Your task to perform on an android device: turn on improve location accuracy Image 0: 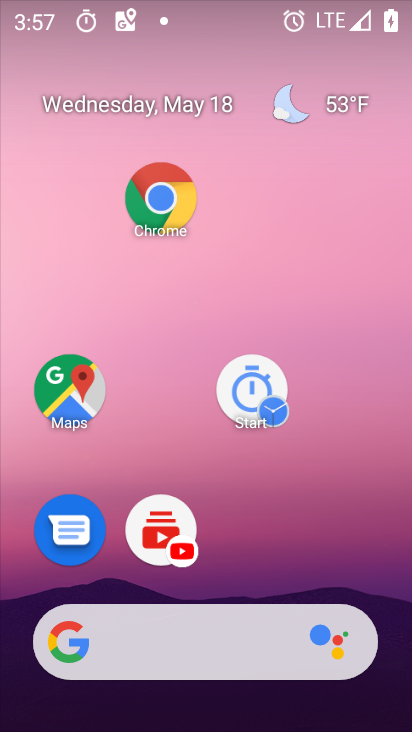
Step 0: drag from (386, 594) to (326, 157)
Your task to perform on an android device: turn on improve location accuracy Image 1: 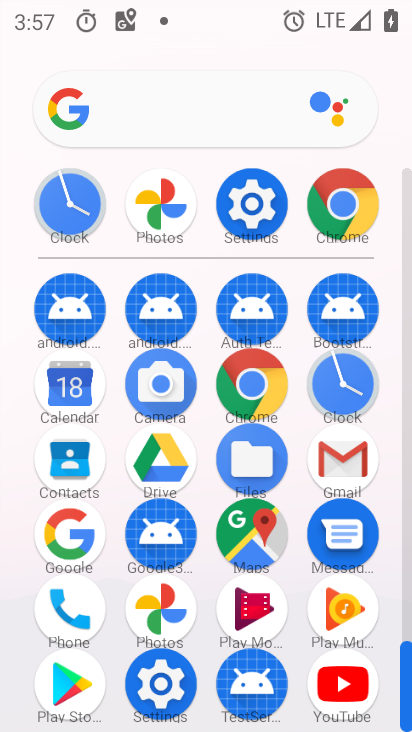
Step 1: click (242, 205)
Your task to perform on an android device: turn on improve location accuracy Image 2: 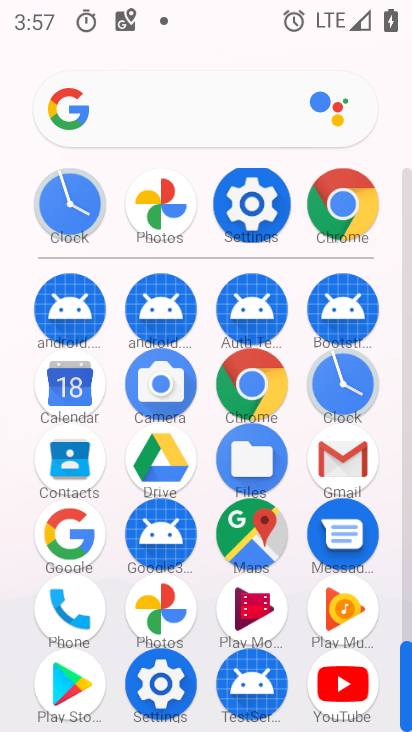
Step 2: click (242, 205)
Your task to perform on an android device: turn on improve location accuracy Image 3: 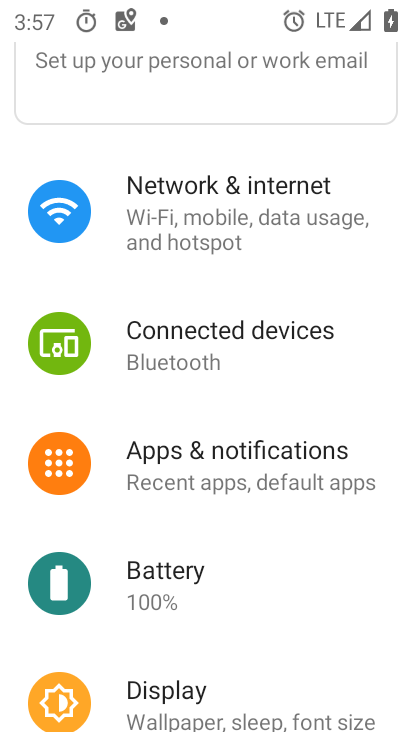
Step 3: drag from (206, 685) to (236, 266)
Your task to perform on an android device: turn on improve location accuracy Image 4: 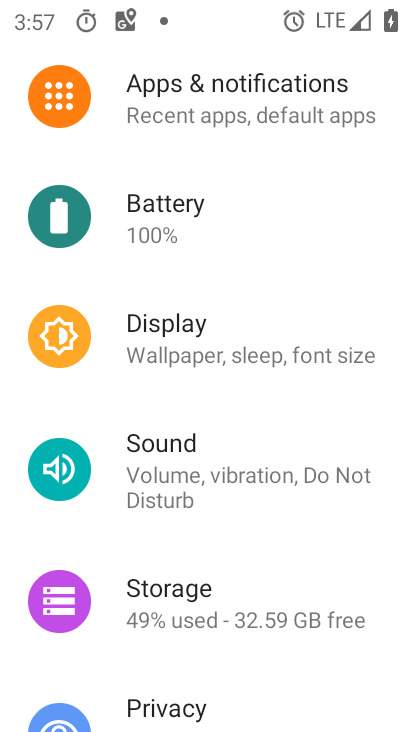
Step 4: drag from (273, 676) to (214, 258)
Your task to perform on an android device: turn on improve location accuracy Image 5: 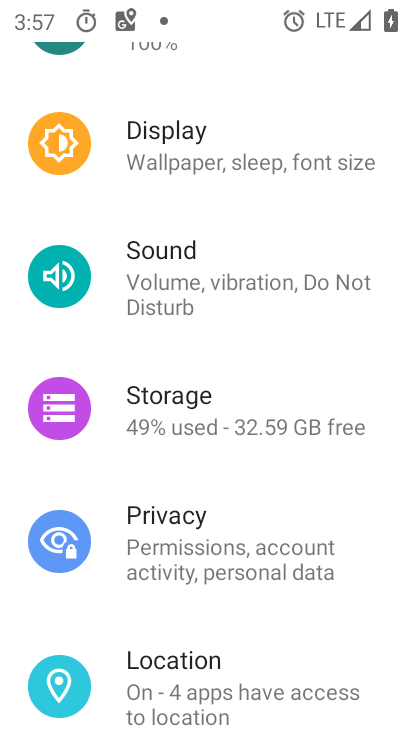
Step 5: drag from (220, 523) to (183, 278)
Your task to perform on an android device: turn on improve location accuracy Image 6: 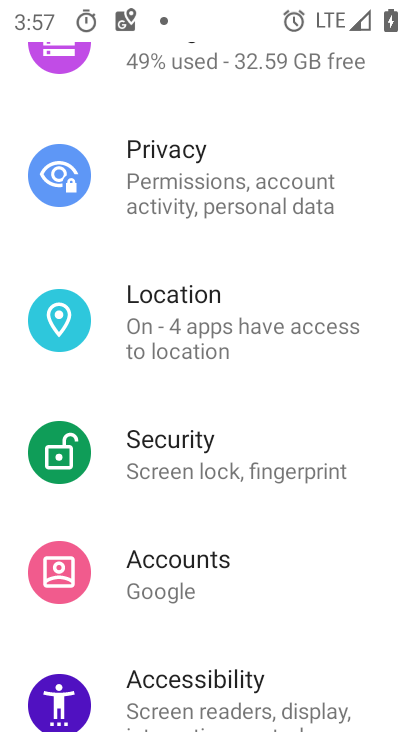
Step 6: click (164, 330)
Your task to perform on an android device: turn on improve location accuracy Image 7: 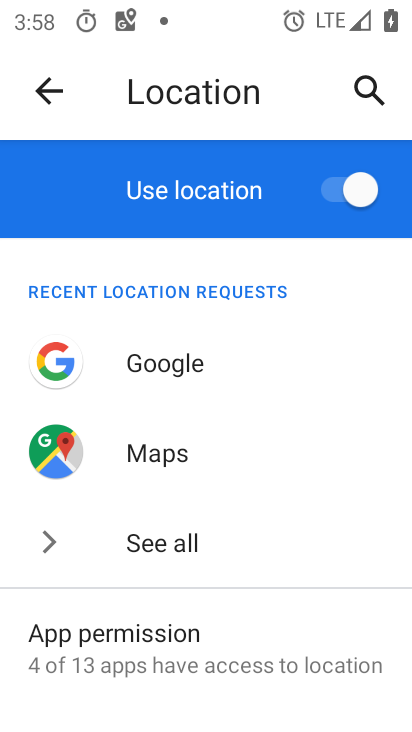
Step 7: drag from (212, 557) to (159, 305)
Your task to perform on an android device: turn on improve location accuracy Image 8: 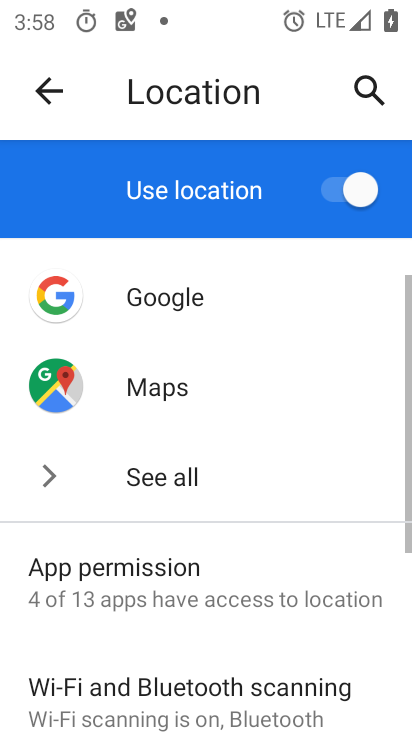
Step 8: drag from (186, 491) to (220, 241)
Your task to perform on an android device: turn on improve location accuracy Image 9: 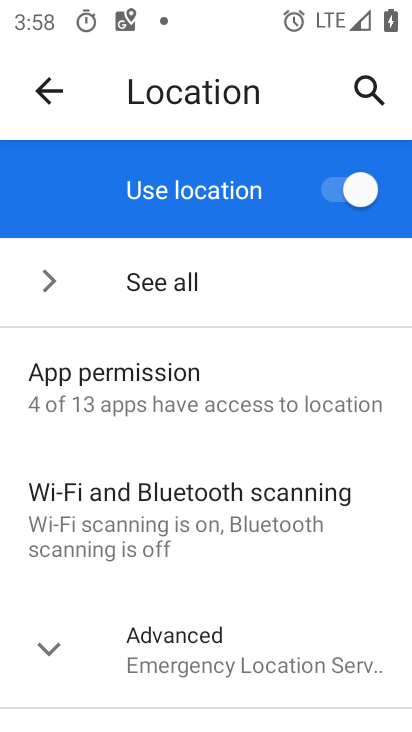
Step 9: click (121, 409)
Your task to perform on an android device: turn on improve location accuracy Image 10: 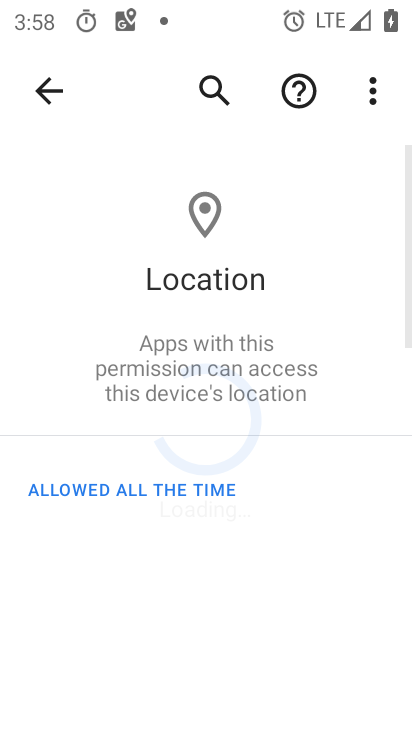
Step 10: click (50, 95)
Your task to perform on an android device: turn on improve location accuracy Image 11: 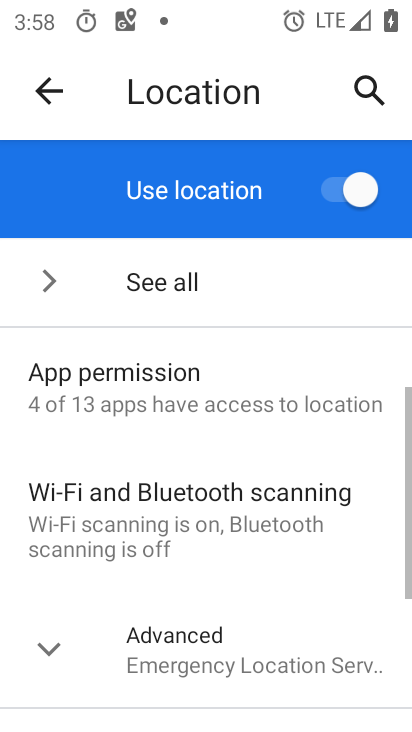
Step 11: click (186, 652)
Your task to perform on an android device: turn on improve location accuracy Image 12: 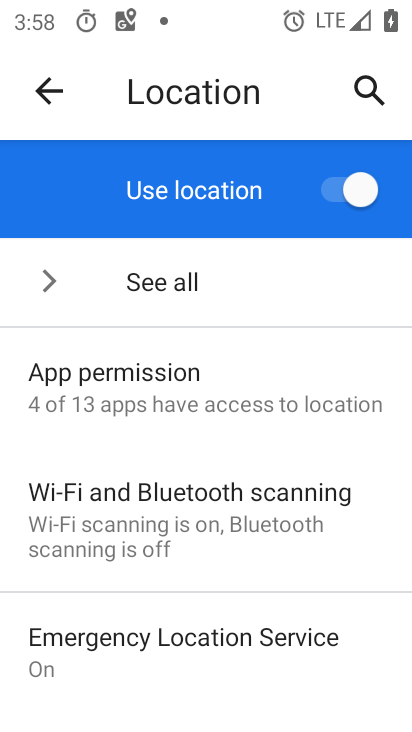
Step 12: drag from (227, 618) to (203, 1)
Your task to perform on an android device: turn on improve location accuracy Image 13: 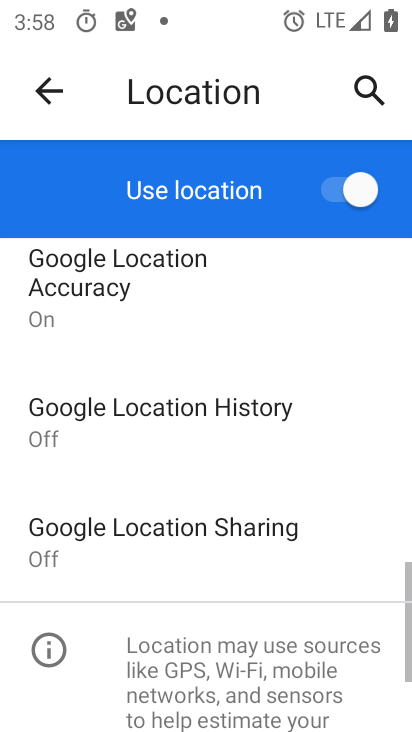
Step 13: drag from (199, 459) to (181, 122)
Your task to perform on an android device: turn on improve location accuracy Image 14: 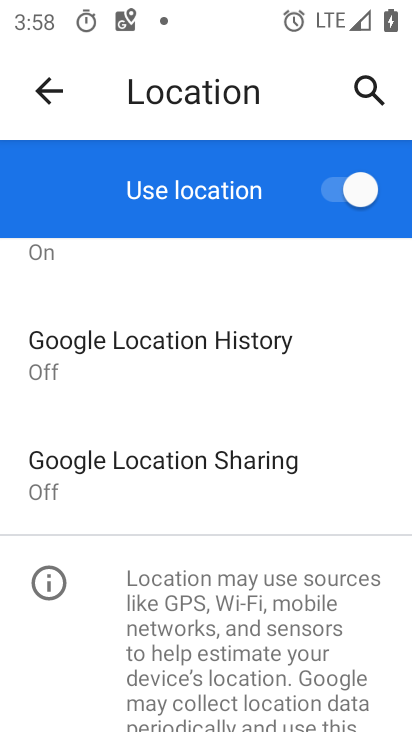
Step 14: drag from (148, 333) to (256, 519)
Your task to perform on an android device: turn on improve location accuracy Image 15: 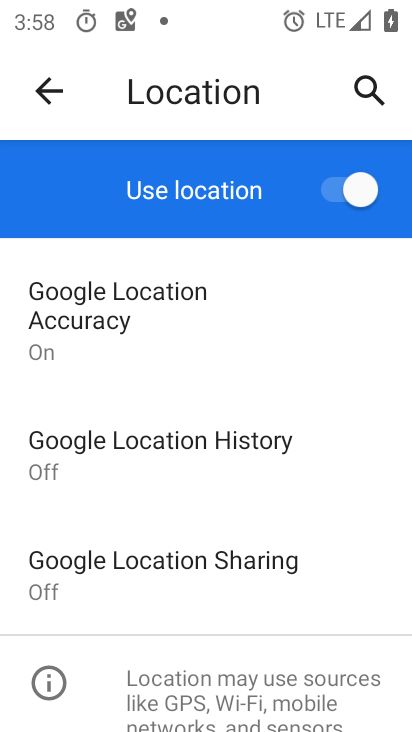
Step 15: click (79, 307)
Your task to perform on an android device: turn on improve location accuracy Image 16: 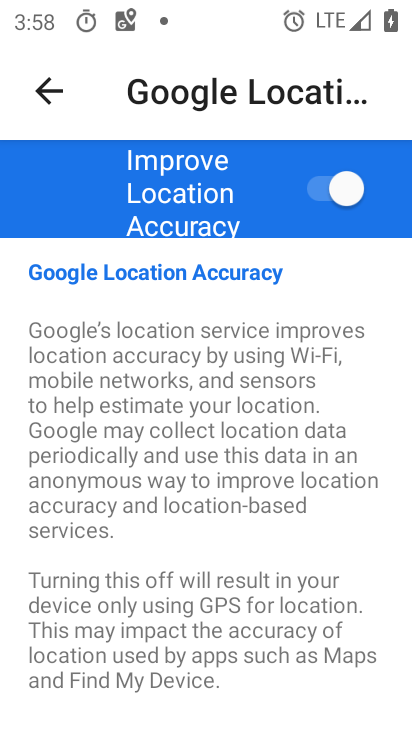
Step 16: click (325, 194)
Your task to perform on an android device: turn on improve location accuracy Image 17: 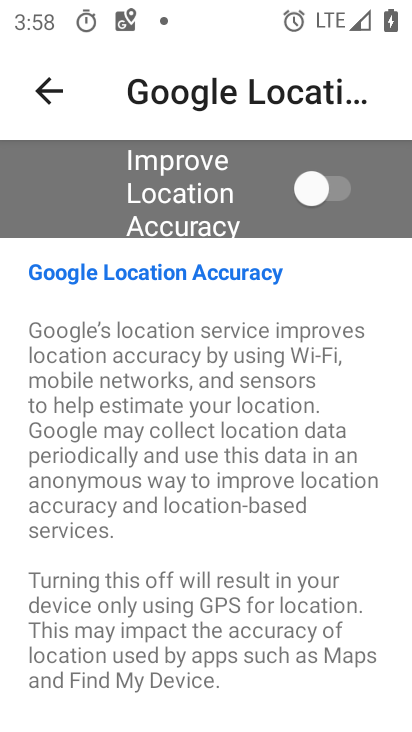
Step 17: click (306, 194)
Your task to perform on an android device: turn on improve location accuracy Image 18: 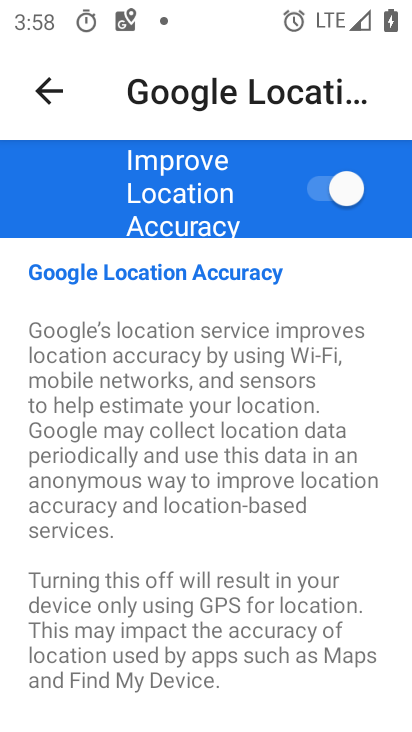
Step 18: task complete